Your task to perform on an android device: open chrome privacy settings Image 0: 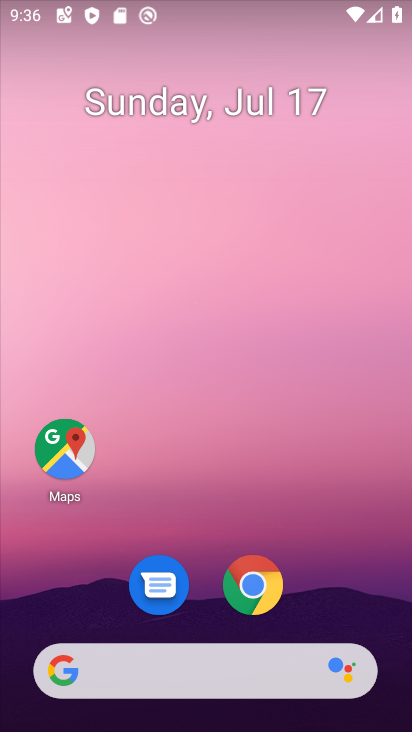
Step 0: drag from (349, 558) to (241, 67)
Your task to perform on an android device: open chrome privacy settings Image 1: 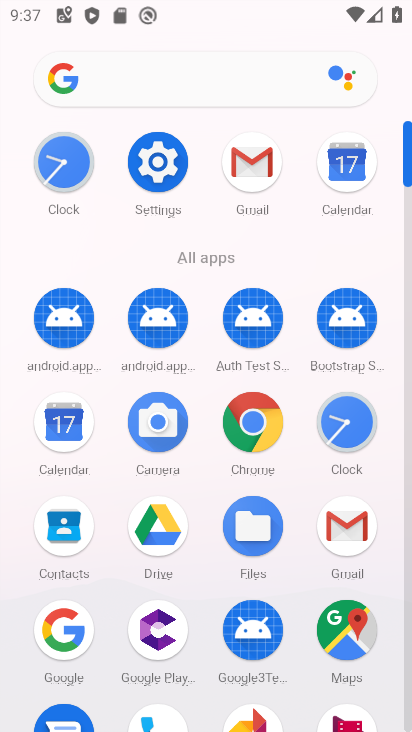
Step 1: click (262, 427)
Your task to perform on an android device: open chrome privacy settings Image 2: 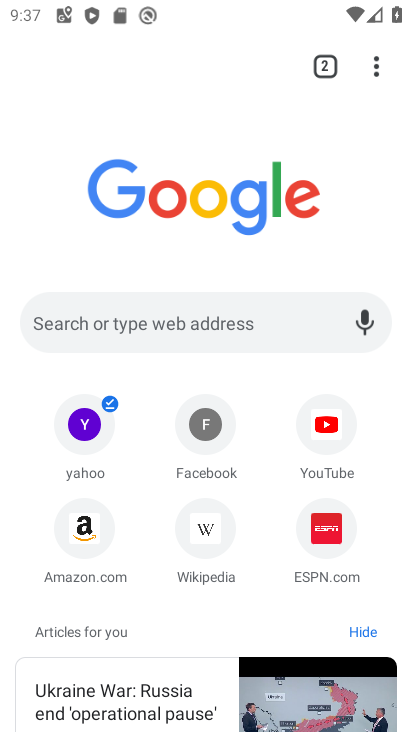
Step 2: click (371, 73)
Your task to perform on an android device: open chrome privacy settings Image 3: 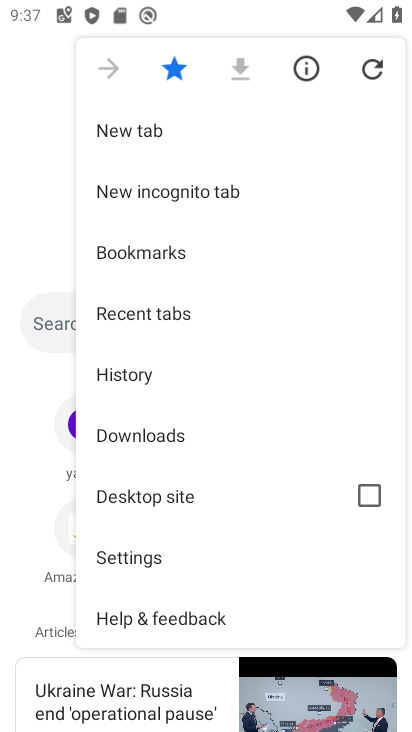
Step 3: click (146, 562)
Your task to perform on an android device: open chrome privacy settings Image 4: 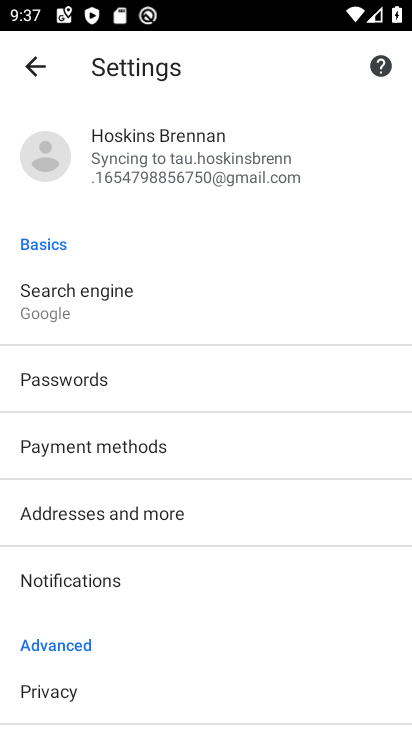
Step 4: drag from (198, 562) to (195, 355)
Your task to perform on an android device: open chrome privacy settings Image 5: 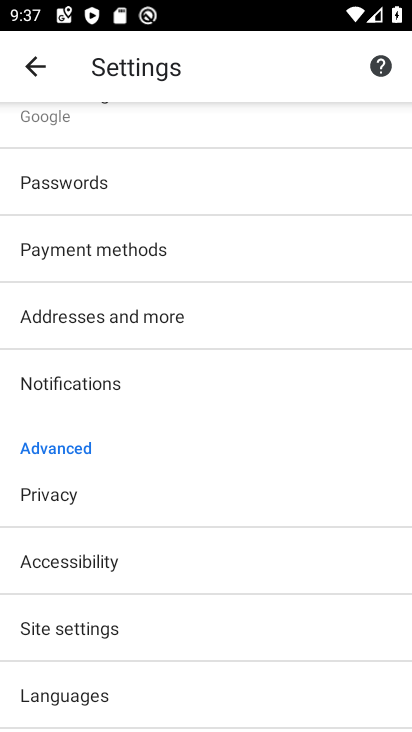
Step 5: click (63, 492)
Your task to perform on an android device: open chrome privacy settings Image 6: 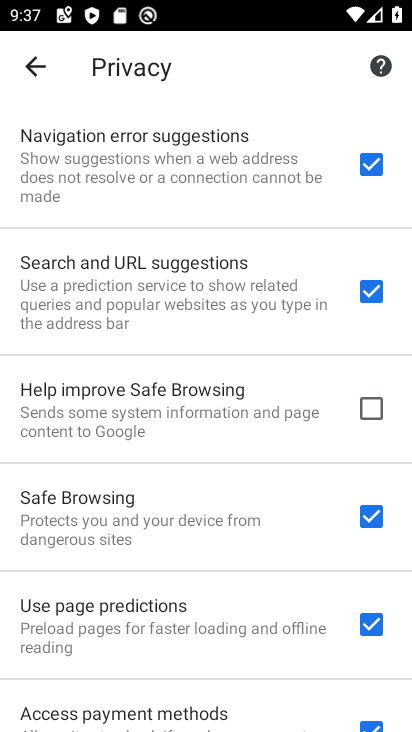
Step 6: task complete